Your task to perform on an android device: Open Youtube and go to "Your channel" Image 0: 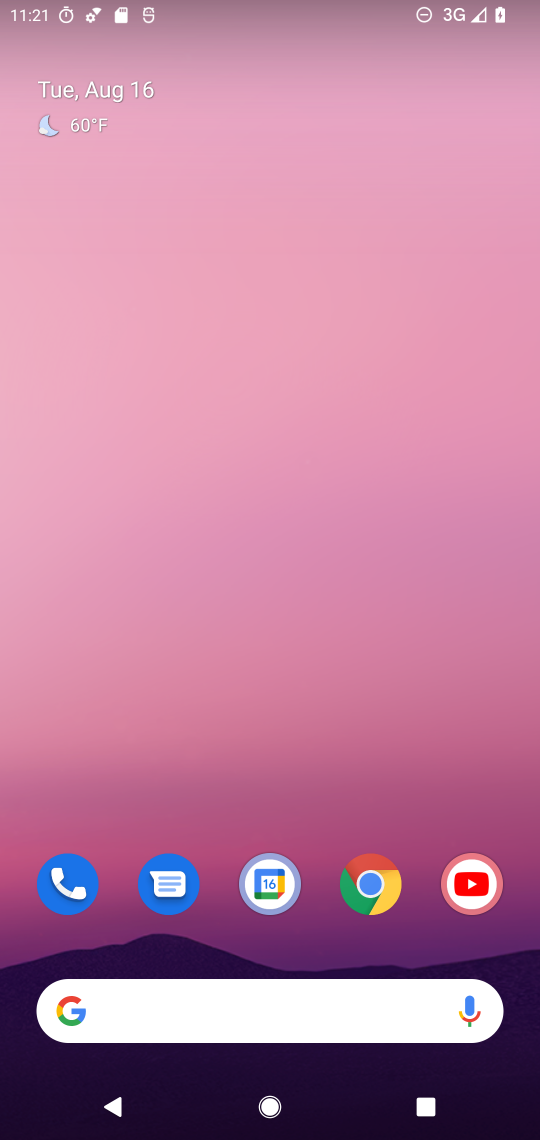
Step 0: click (475, 874)
Your task to perform on an android device: Open Youtube and go to "Your channel" Image 1: 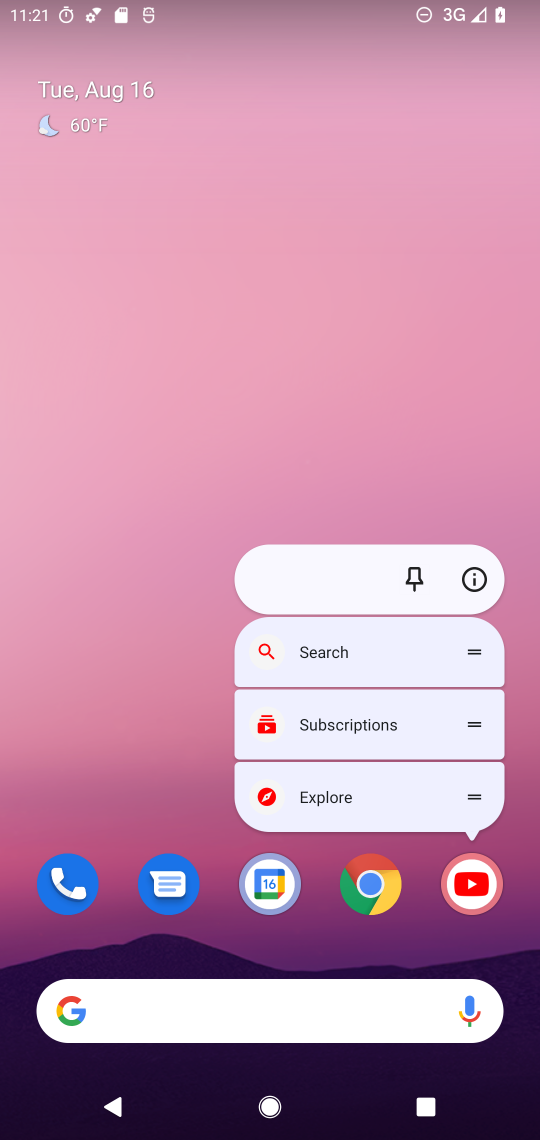
Step 1: click (475, 888)
Your task to perform on an android device: Open Youtube and go to "Your channel" Image 2: 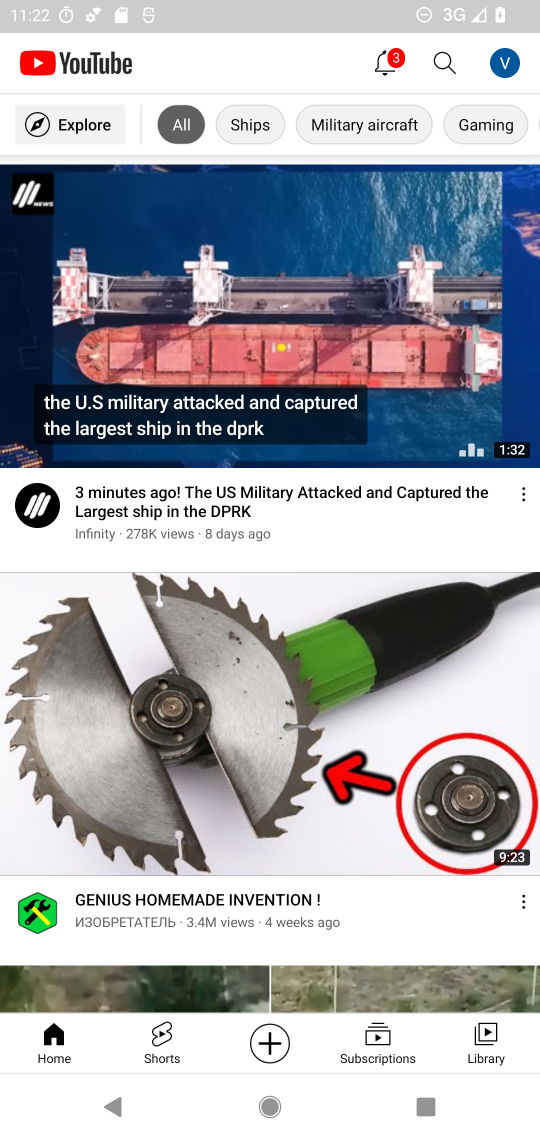
Step 2: click (501, 60)
Your task to perform on an android device: Open Youtube and go to "Your channel" Image 3: 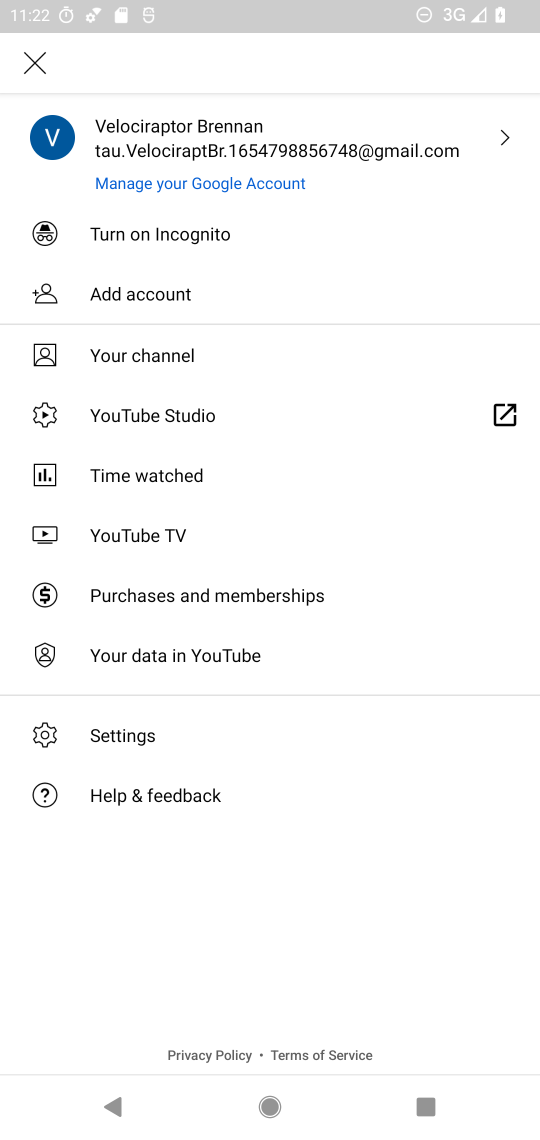
Step 3: click (131, 358)
Your task to perform on an android device: Open Youtube and go to "Your channel" Image 4: 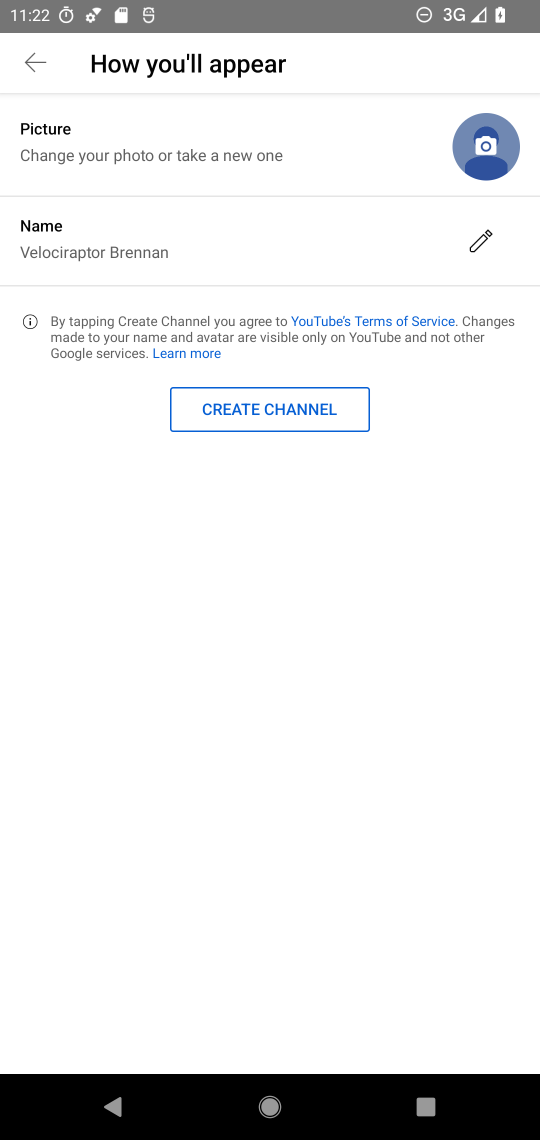
Step 4: task complete